Your task to perform on an android device: Go to ESPN.com Image 0: 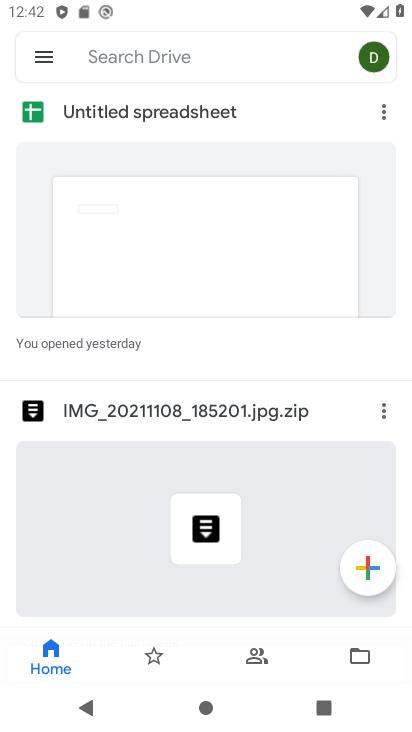
Step 0: press home button
Your task to perform on an android device: Go to ESPN.com Image 1: 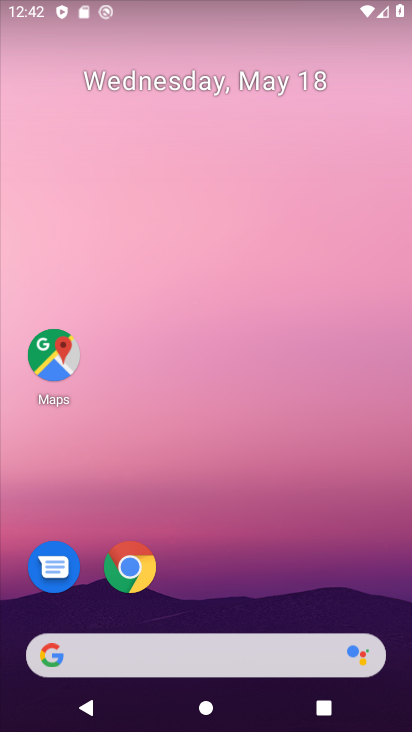
Step 1: click (133, 557)
Your task to perform on an android device: Go to ESPN.com Image 2: 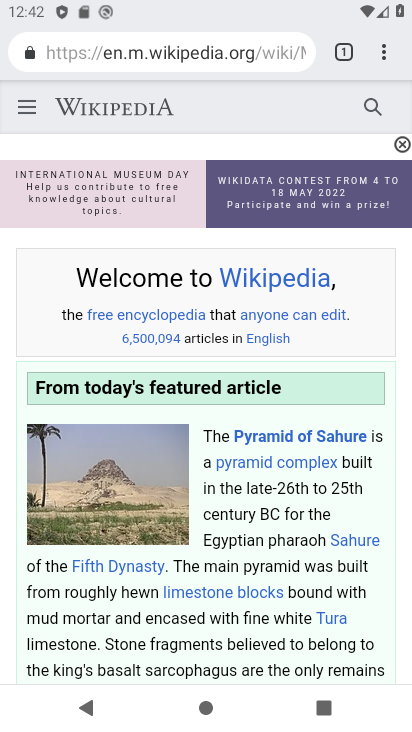
Step 2: click (343, 51)
Your task to perform on an android device: Go to ESPN.com Image 3: 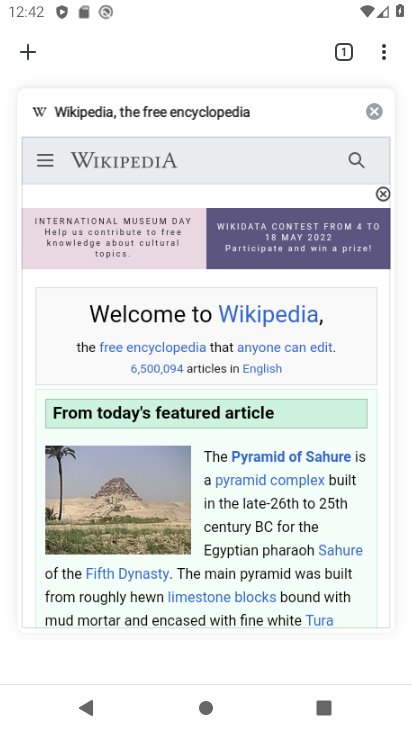
Step 3: click (28, 53)
Your task to perform on an android device: Go to ESPN.com Image 4: 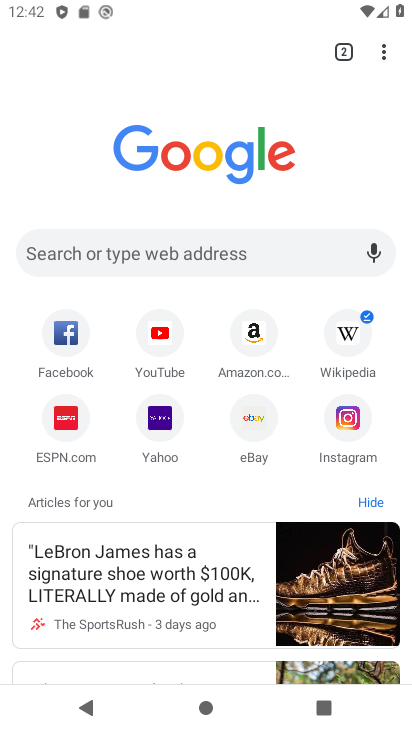
Step 4: click (77, 436)
Your task to perform on an android device: Go to ESPN.com Image 5: 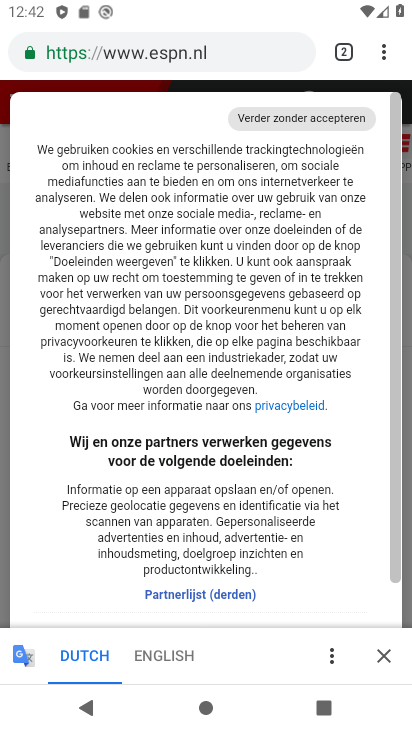
Step 5: task complete